Your task to perform on an android device: Open settings Image 0: 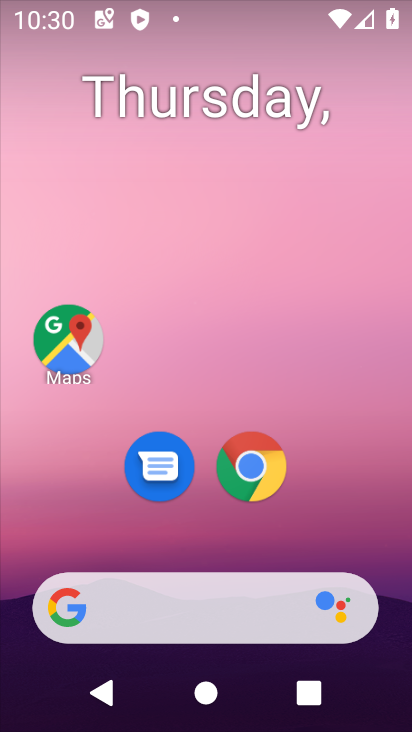
Step 0: drag from (228, 540) to (220, 75)
Your task to perform on an android device: Open settings Image 1: 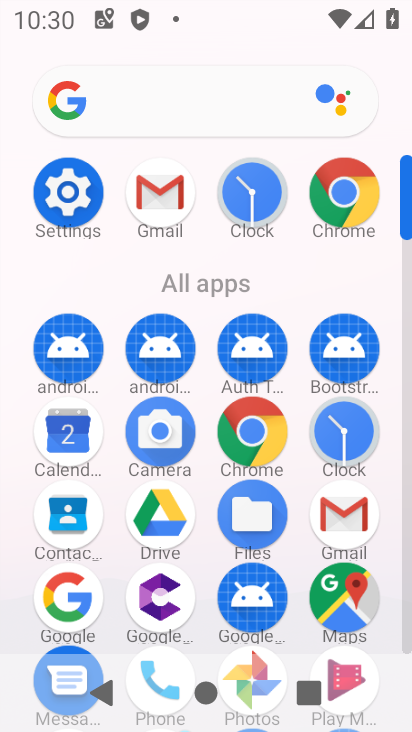
Step 1: click (67, 185)
Your task to perform on an android device: Open settings Image 2: 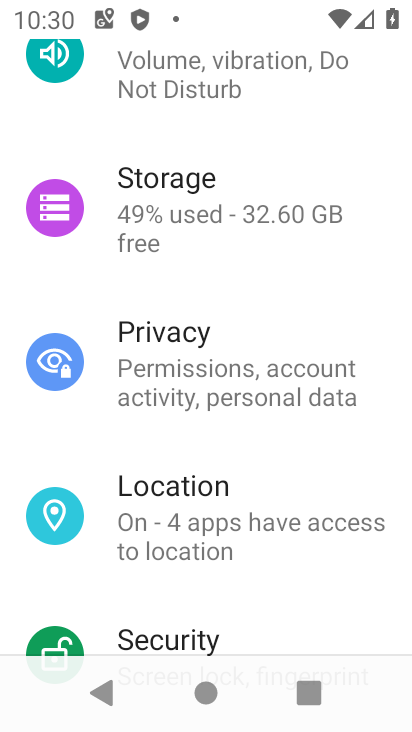
Step 2: task complete